Your task to perform on an android device: check storage Image 0: 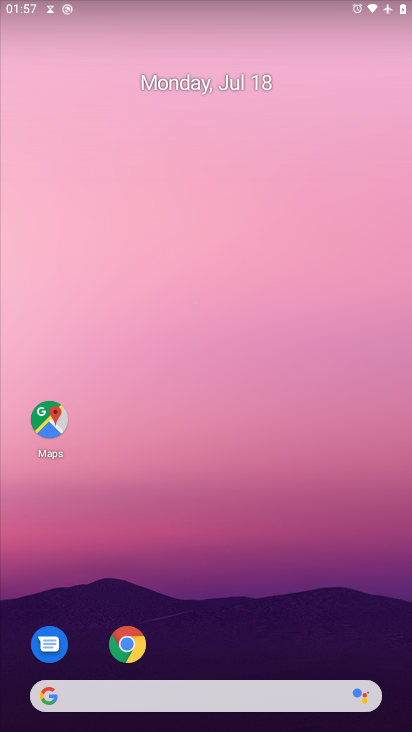
Step 0: press home button
Your task to perform on an android device: check storage Image 1: 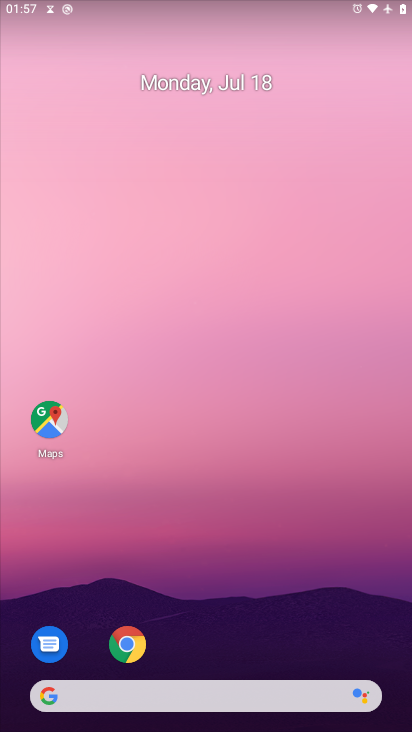
Step 1: drag from (194, 665) to (182, 8)
Your task to perform on an android device: check storage Image 2: 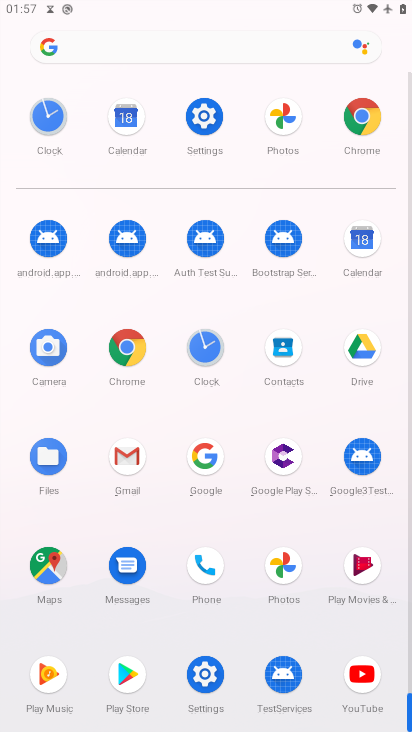
Step 2: click (206, 127)
Your task to perform on an android device: check storage Image 3: 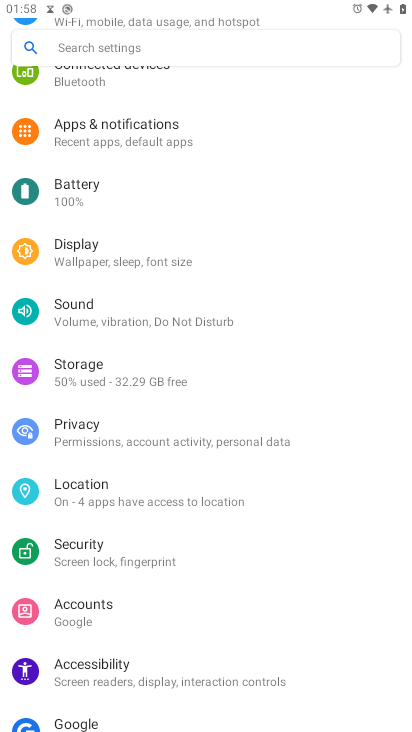
Step 3: click (87, 374)
Your task to perform on an android device: check storage Image 4: 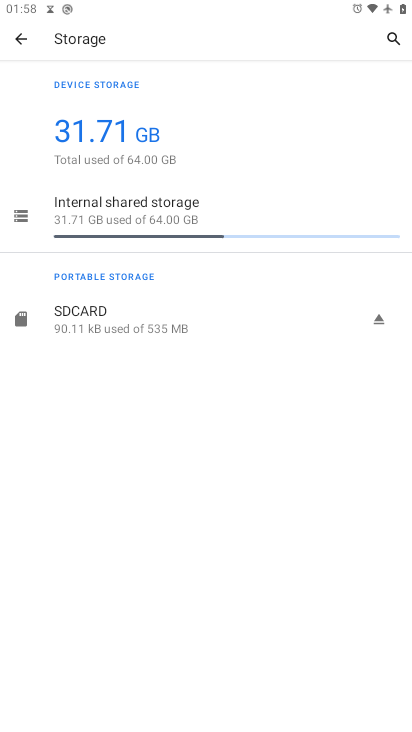
Step 4: task complete